Your task to perform on an android device: check data usage Image 0: 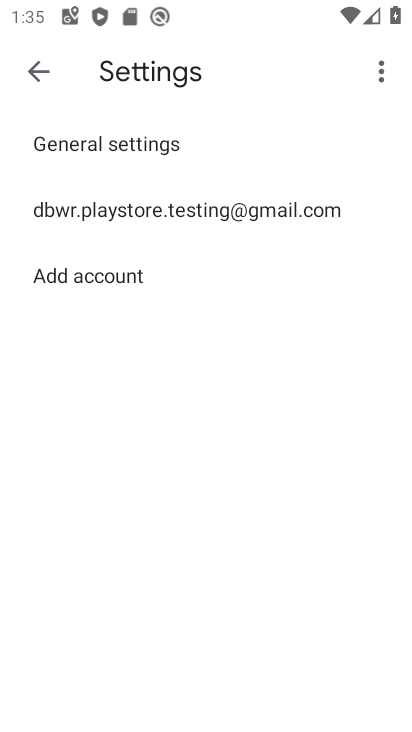
Step 0: press home button
Your task to perform on an android device: check data usage Image 1: 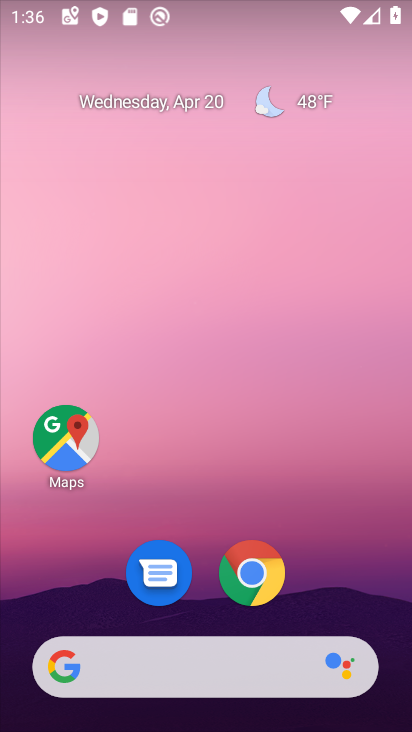
Step 1: drag from (171, 650) to (310, 120)
Your task to perform on an android device: check data usage Image 2: 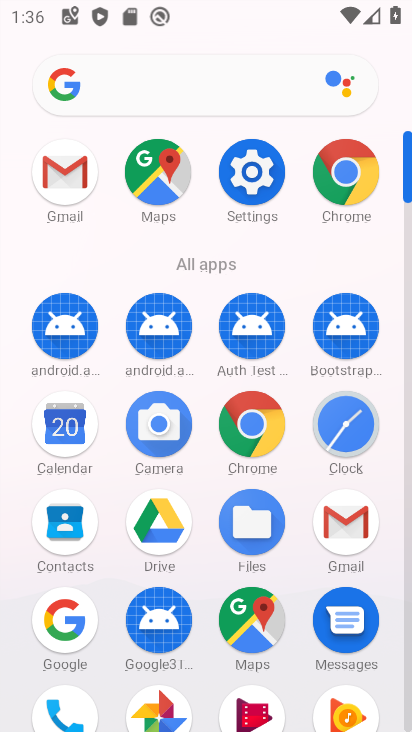
Step 2: click (249, 184)
Your task to perform on an android device: check data usage Image 3: 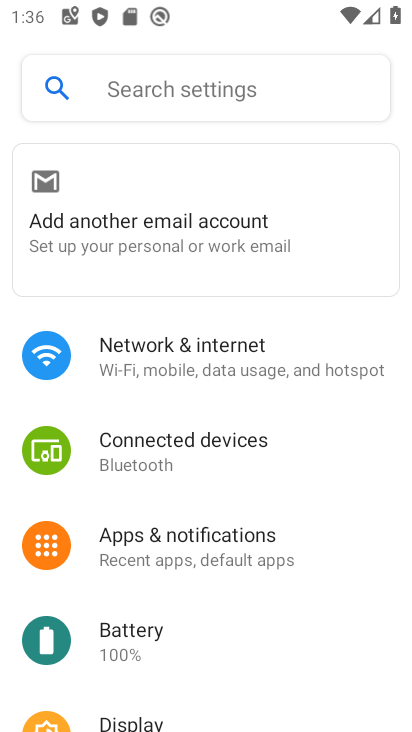
Step 3: click (208, 357)
Your task to perform on an android device: check data usage Image 4: 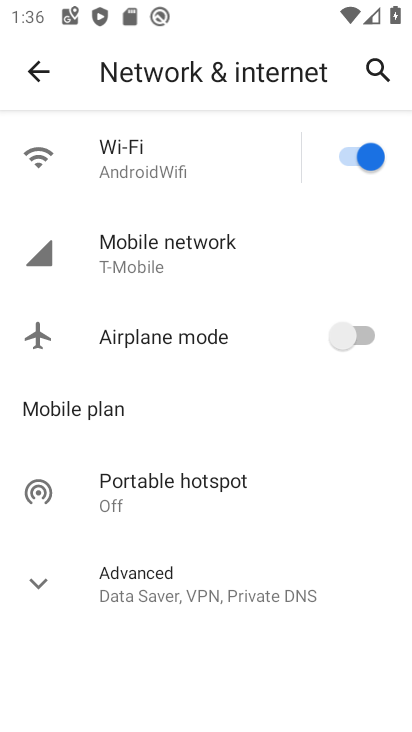
Step 4: click (165, 161)
Your task to perform on an android device: check data usage Image 5: 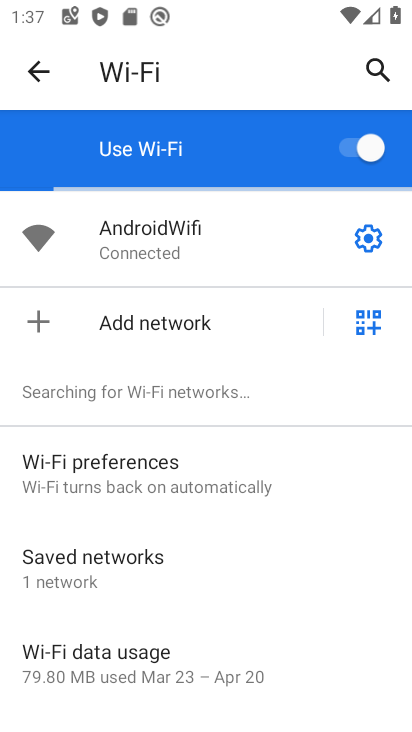
Step 5: click (89, 653)
Your task to perform on an android device: check data usage Image 6: 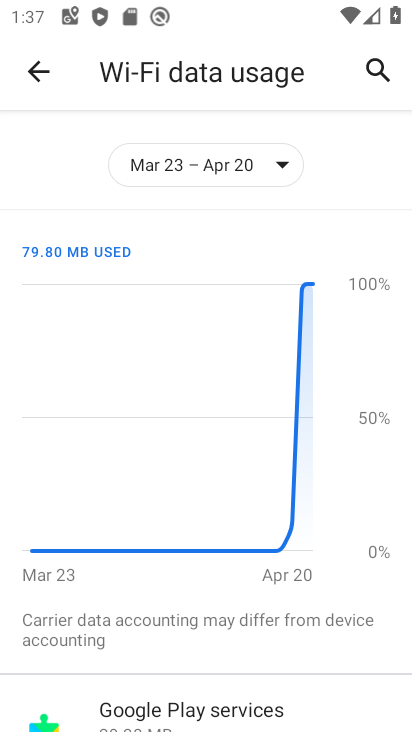
Step 6: task complete